Your task to perform on an android device: Set the phone to "Do not disturb". Image 0: 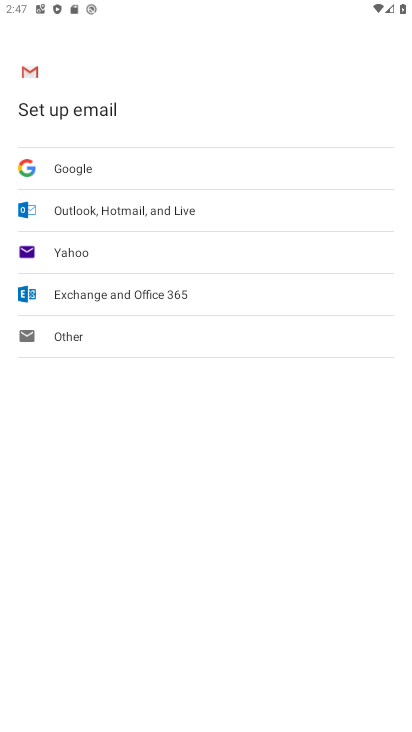
Step 0: press home button
Your task to perform on an android device: Set the phone to "Do not disturb". Image 1: 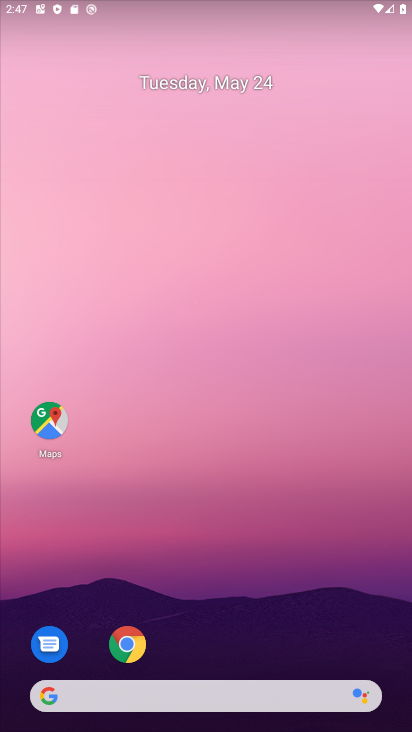
Step 1: drag from (281, 623) to (250, 94)
Your task to perform on an android device: Set the phone to "Do not disturb". Image 2: 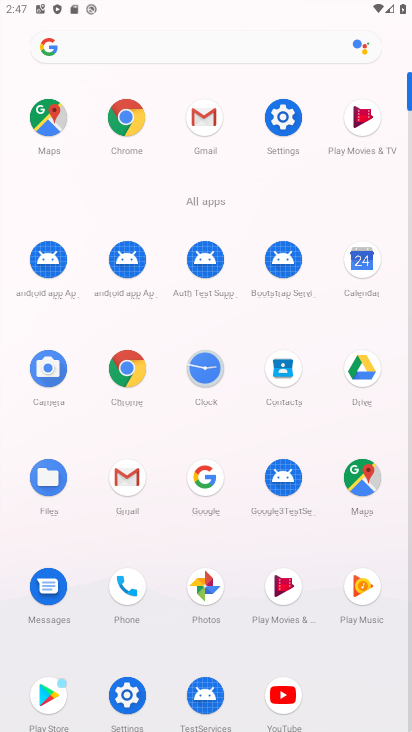
Step 2: click (292, 121)
Your task to perform on an android device: Set the phone to "Do not disturb". Image 3: 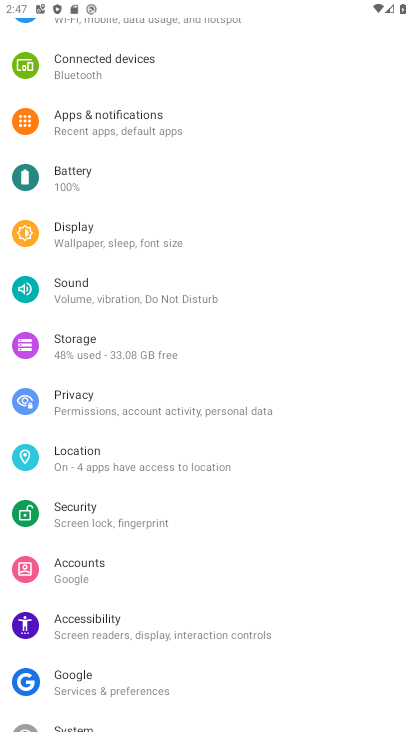
Step 3: click (103, 285)
Your task to perform on an android device: Set the phone to "Do not disturb". Image 4: 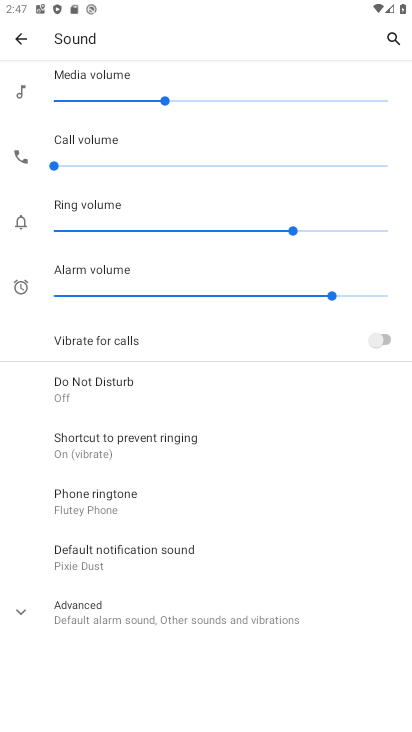
Step 4: click (167, 392)
Your task to perform on an android device: Set the phone to "Do not disturb". Image 5: 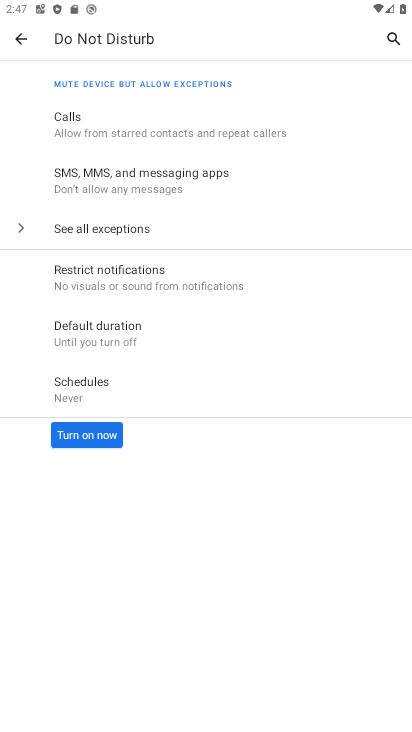
Step 5: click (71, 445)
Your task to perform on an android device: Set the phone to "Do not disturb". Image 6: 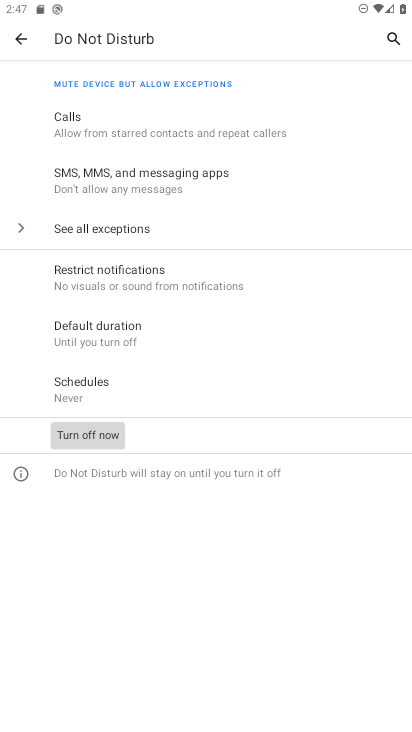
Step 6: task complete